Your task to perform on an android device: change alarm snooze length Image 0: 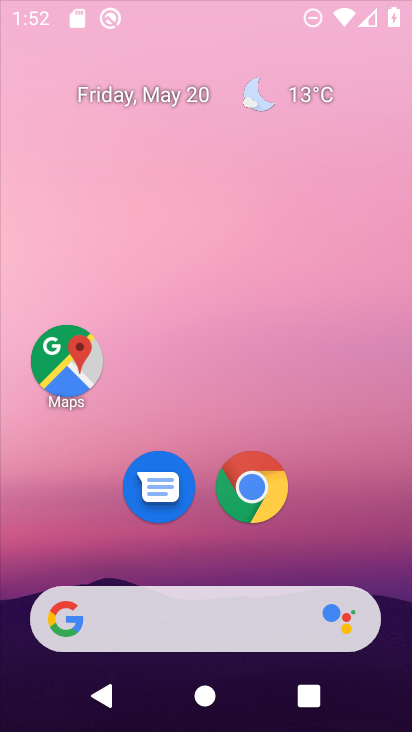
Step 0: press home button
Your task to perform on an android device: change alarm snooze length Image 1: 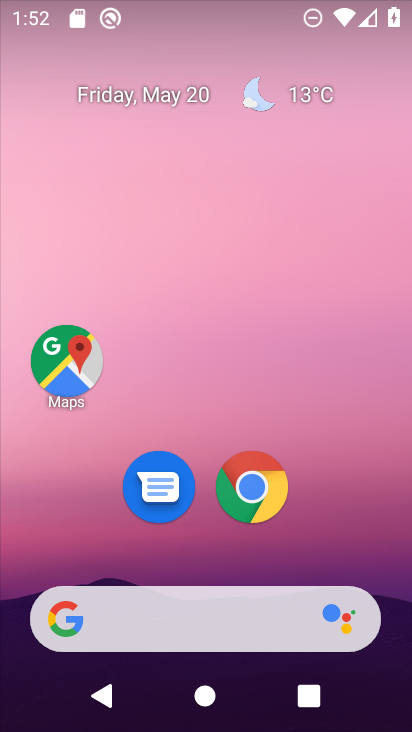
Step 1: drag from (221, 552) to (228, 111)
Your task to perform on an android device: change alarm snooze length Image 2: 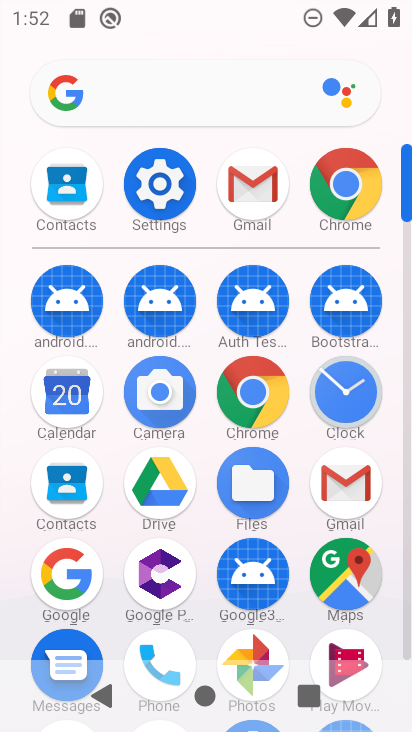
Step 2: click (345, 392)
Your task to perform on an android device: change alarm snooze length Image 3: 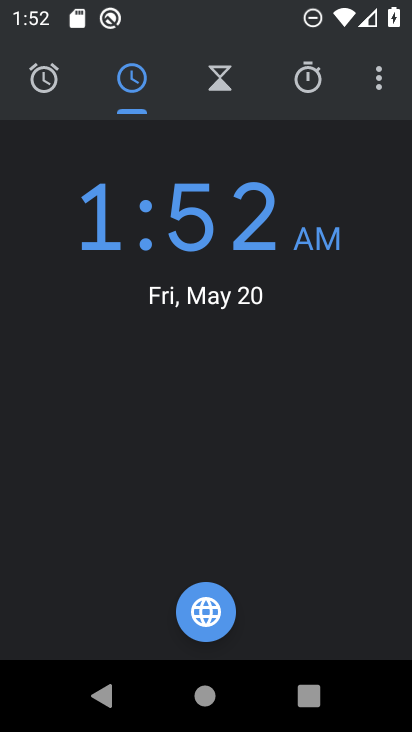
Step 3: click (381, 75)
Your task to perform on an android device: change alarm snooze length Image 4: 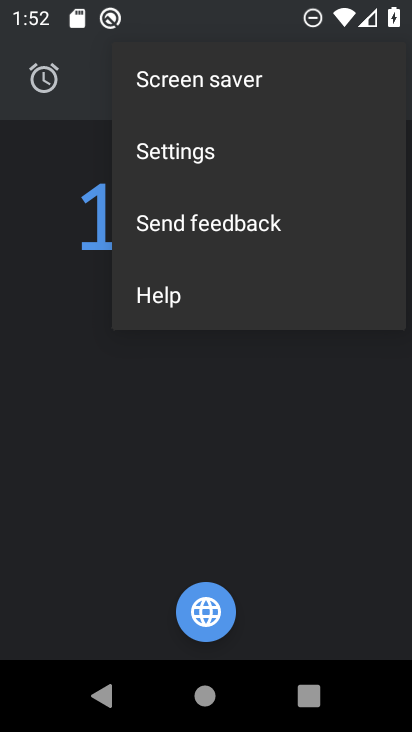
Step 4: click (231, 154)
Your task to perform on an android device: change alarm snooze length Image 5: 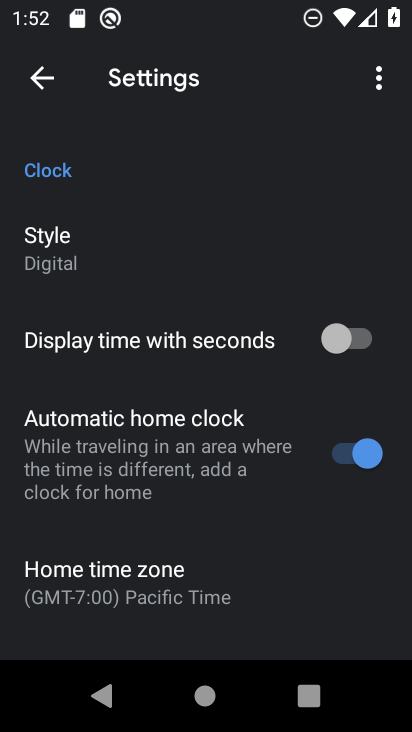
Step 5: drag from (207, 536) to (214, 139)
Your task to perform on an android device: change alarm snooze length Image 6: 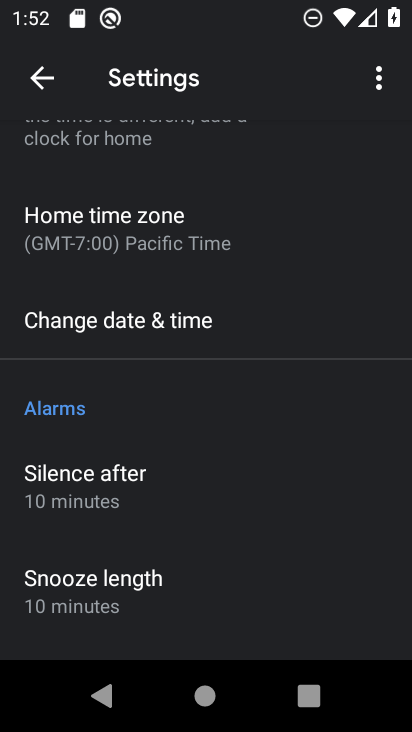
Step 6: click (155, 600)
Your task to perform on an android device: change alarm snooze length Image 7: 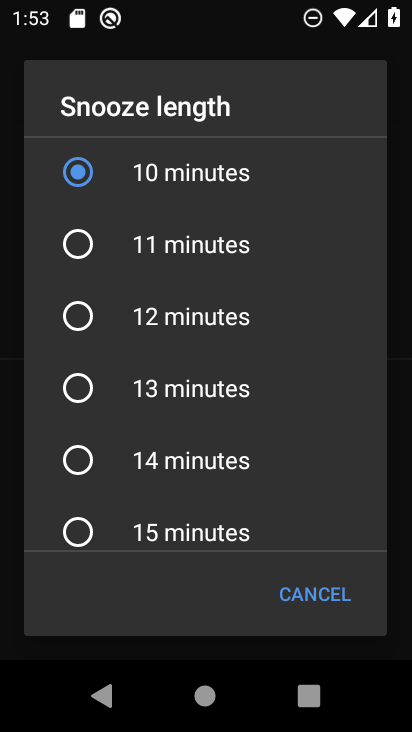
Step 7: drag from (115, 202) to (121, 558)
Your task to perform on an android device: change alarm snooze length Image 8: 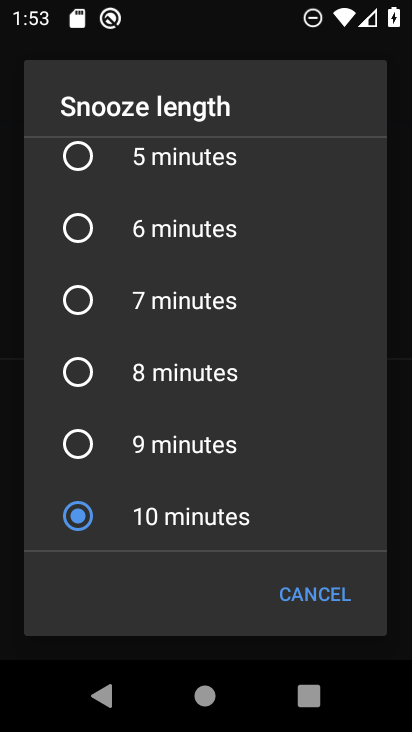
Step 8: click (77, 223)
Your task to perform on an android device: change alarm snooze length Image 9: 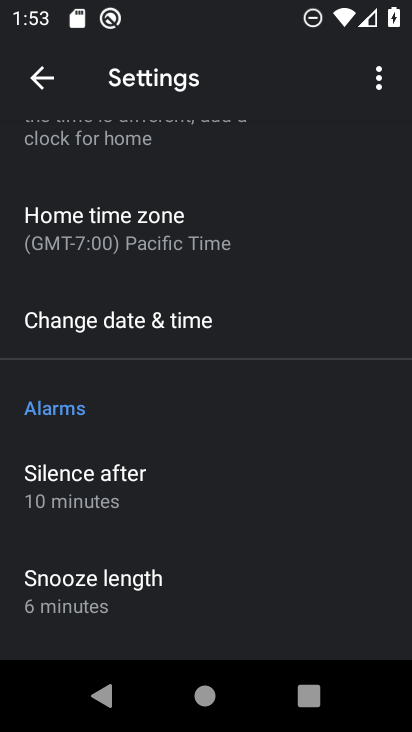
Step 9: task complete